Your task to perform on an android device: Go to display settings Image 0: 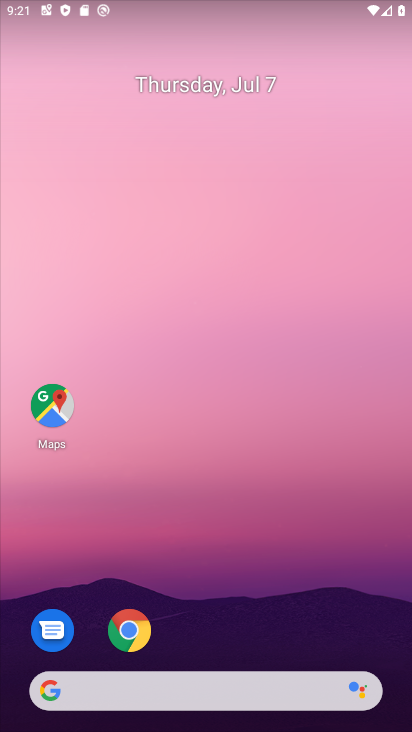
Step 0: drag from (157, 587) to (176, 318)
Your task to perform on an android device: Go to display settings Image 1: 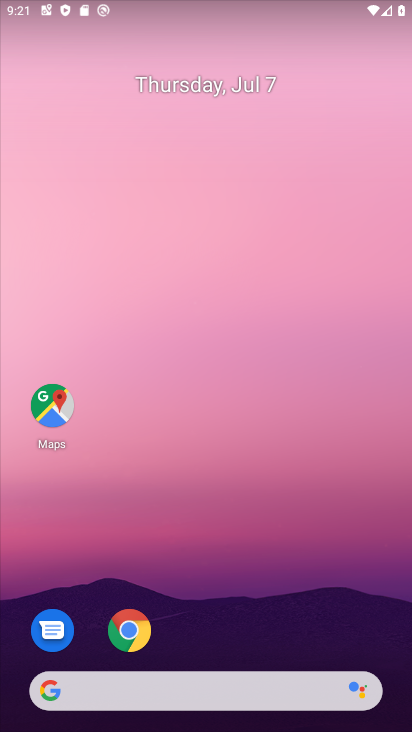
Step 1: drag from (274, 543) to (262, 300)
Your task to perform on an android device: Go to display settings Image 2: 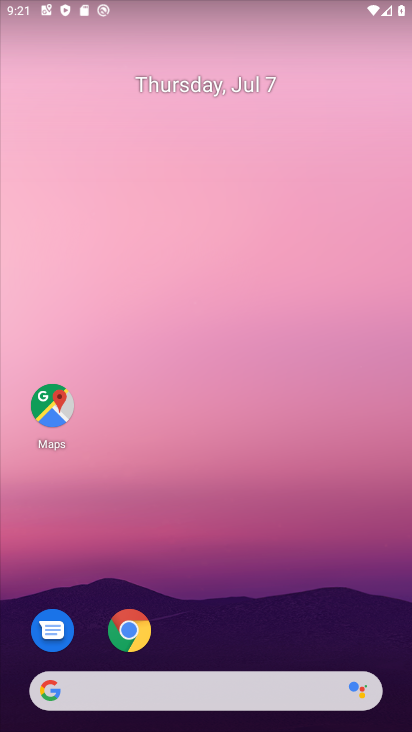
Step 2: drag from (192, 651) to (205, 322)
Your task to perform on an android device: Go to display settings Image 3: 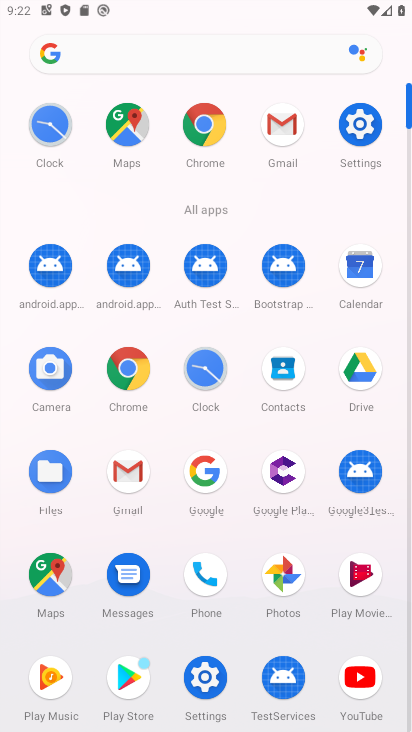
Step 3: click (355, 135)
Your task to perform on an android device: Go to display settings Image 4: 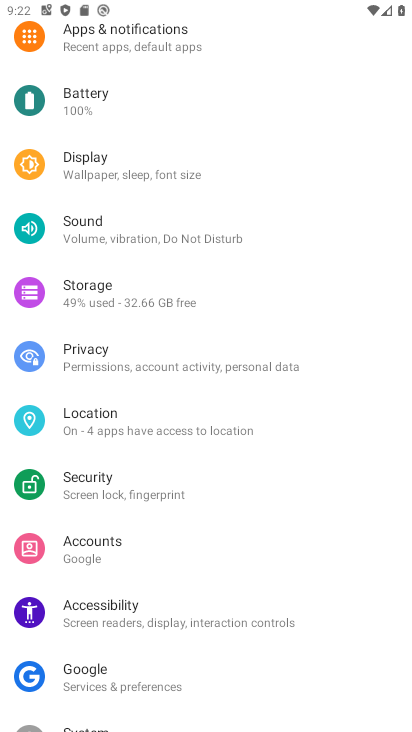
Step 4: click (121, 164)
Your task to perform on an android device: Go to display settings Image 5: 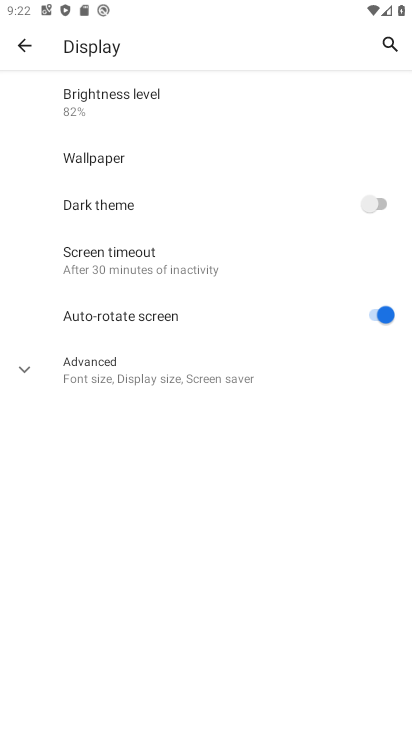
Step 5: click (119, 368)
Your task to perform on an android device: Go to display settings Image 6: 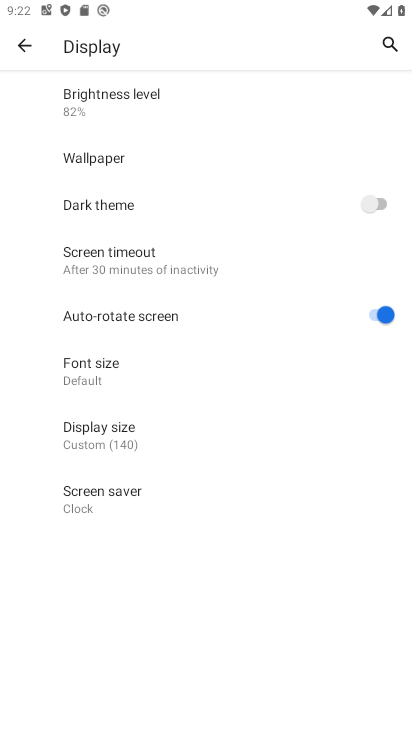
Step 6: task complete